Your task to perform on an android device: Search for macbook pro on ebay, select the first entry, add it to the cart, then select checkout. Image 0: 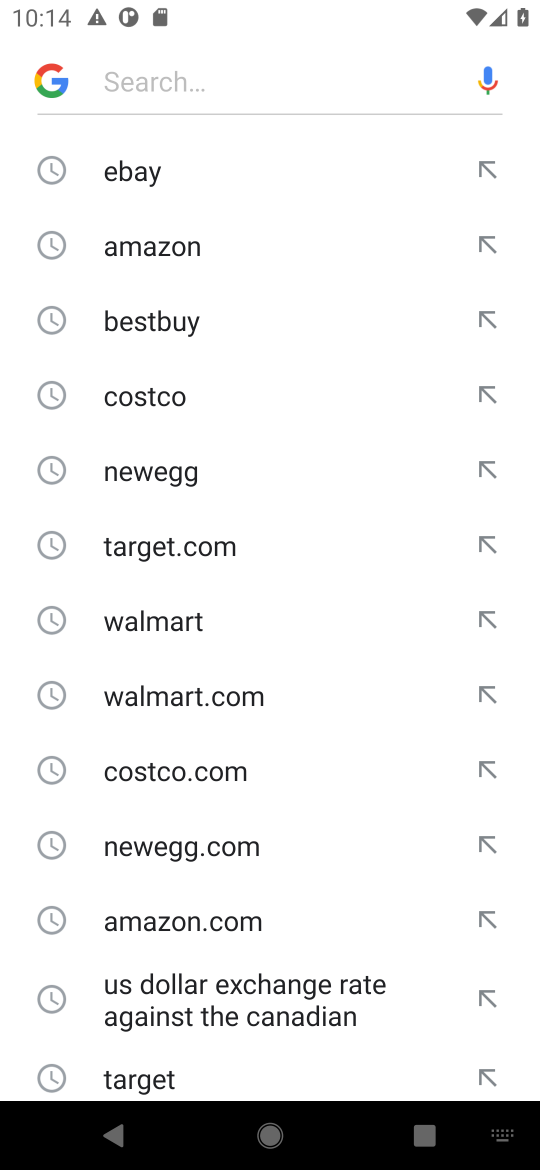
Step 0: press home button
Your task to perform on an android device: Search for macbook pro on ebay, select the first entry, add it to the cart, then select checkout. Image 1: 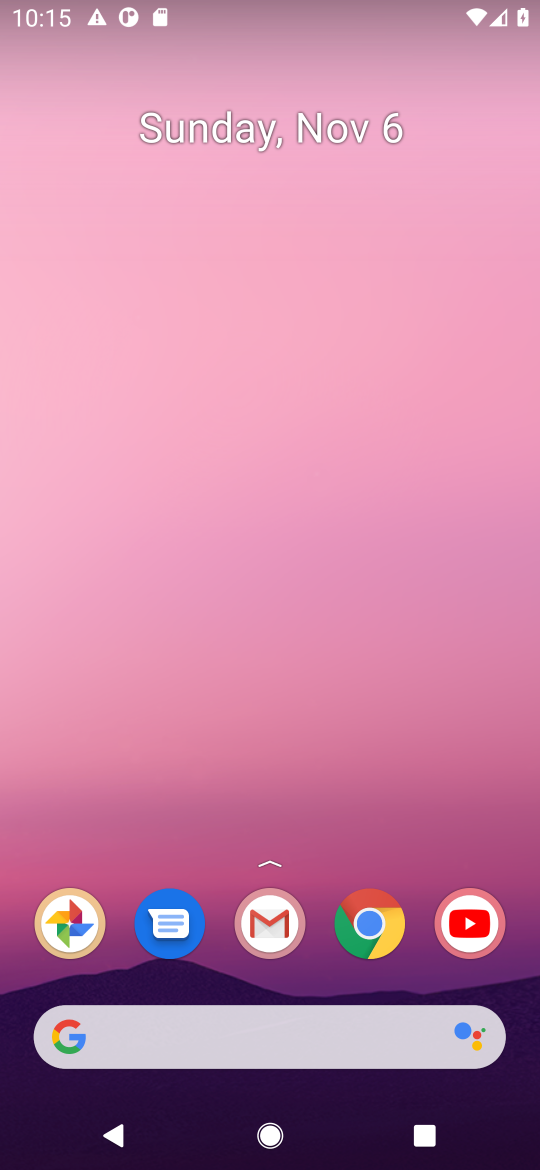
Step 1: click (119, 169)
Your task to perform on an android device: Search for macbook pro on ebay, select the first entry, add it to the cart, then select checkout. Image 2: 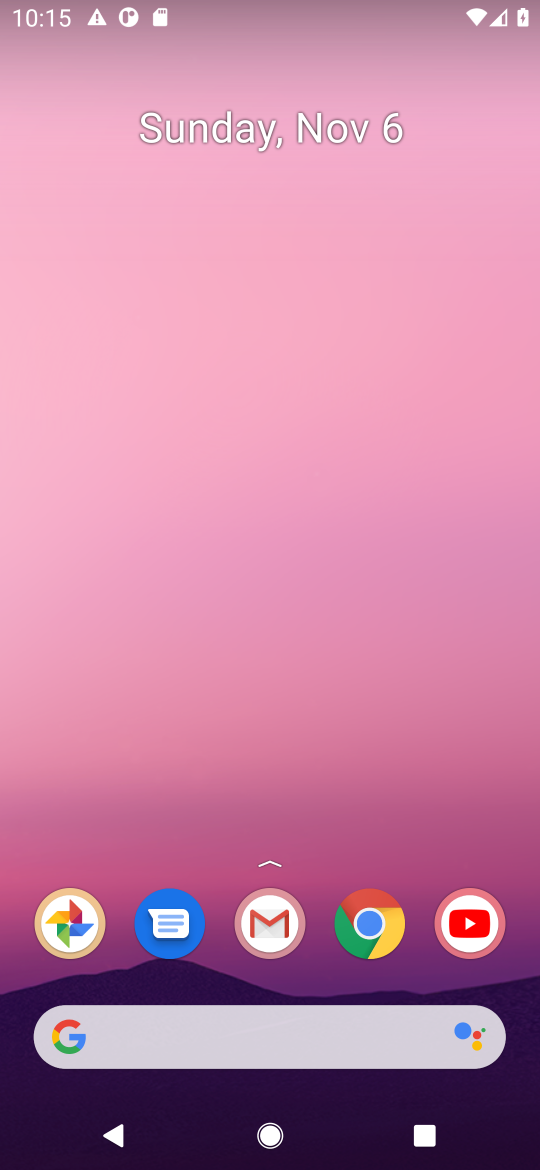
Step 2: click (386, 916)
Your task to perform on an android device: Search for macbook pro on ebay, select the first entry, add it to the cart, then select checkout. Image 3: 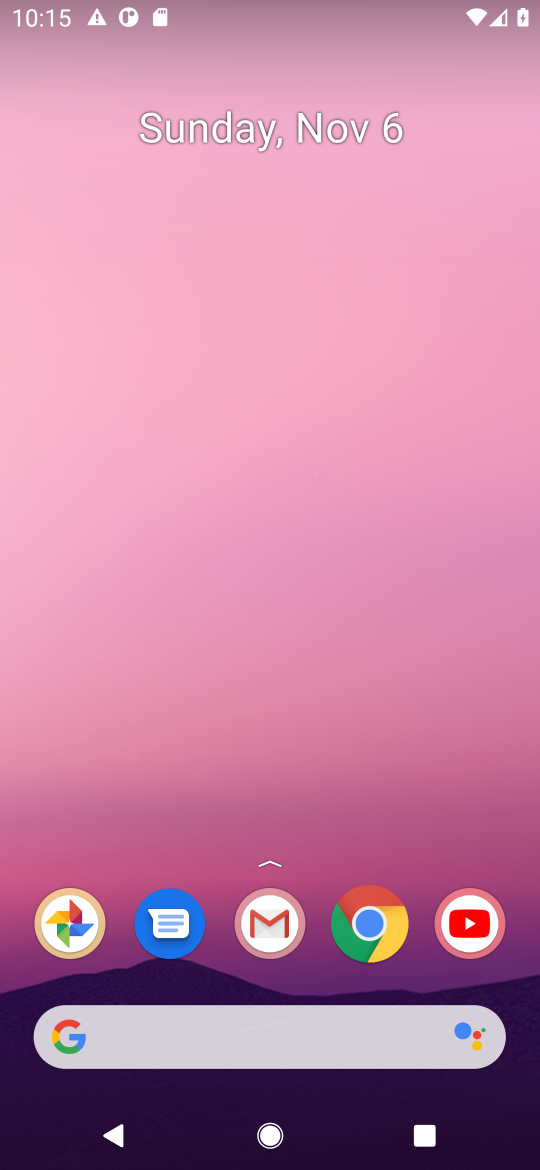
Step 3: click (373, 938)
Your task to perform on an android device: Search for macbook pro on ebay, select the first entry, add it to the cart, then select checkout. Image 4: 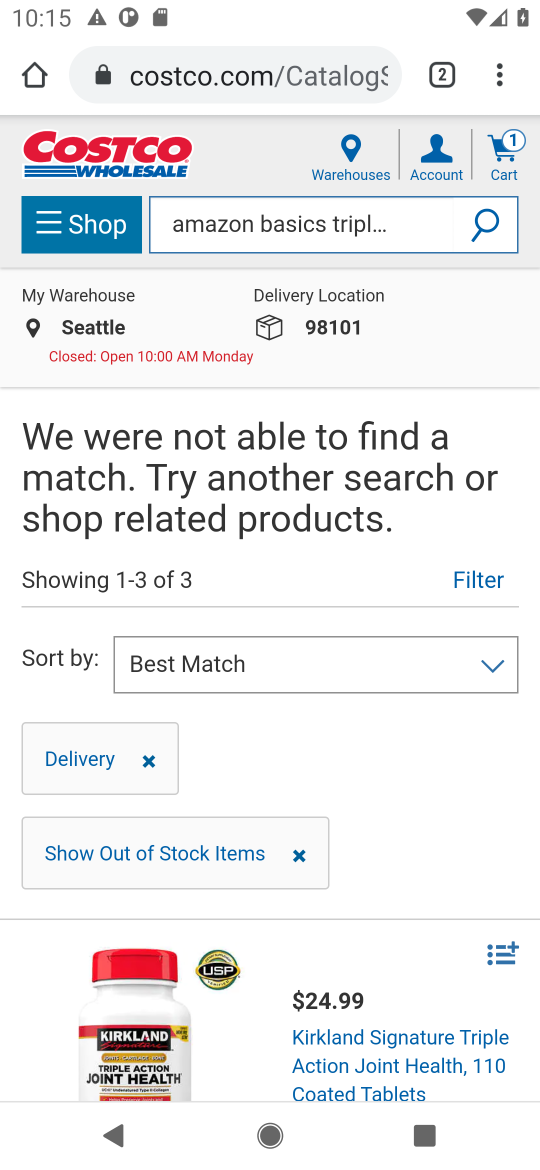
Step 4: click (170, 66)
Your task to perform on an android device: Search for macbook pro on ebay, select the first entry, add it to the cart, then select checkout. Image 5: 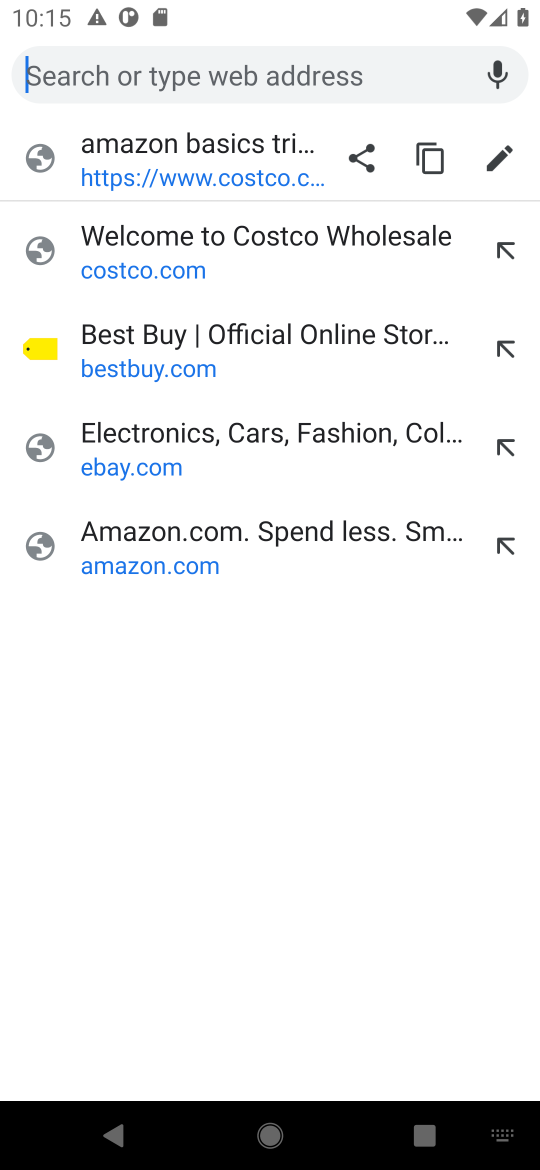
Step 5: click (110, 479)
Your task to perform on an android device: Search for macbook pro on ebay, select the first entry, add it to the cart, then select checkout. Image 6: 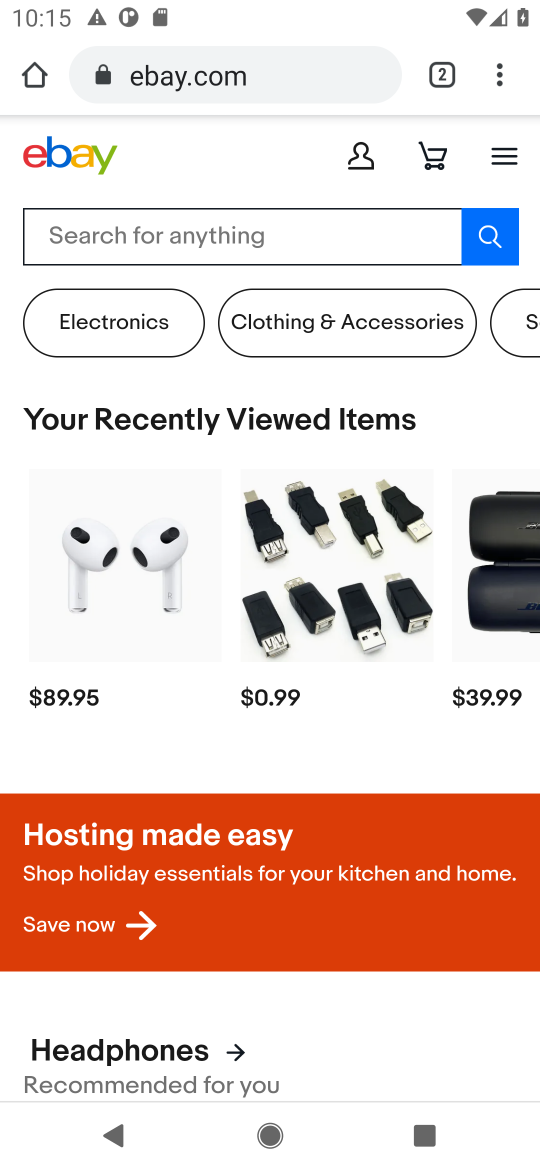
Step 6: click (70, 246)
Your task to perform on an android device: Search for macbook pro on ebay, select the first entry, add it to the cart, then select checkout. Image 7: 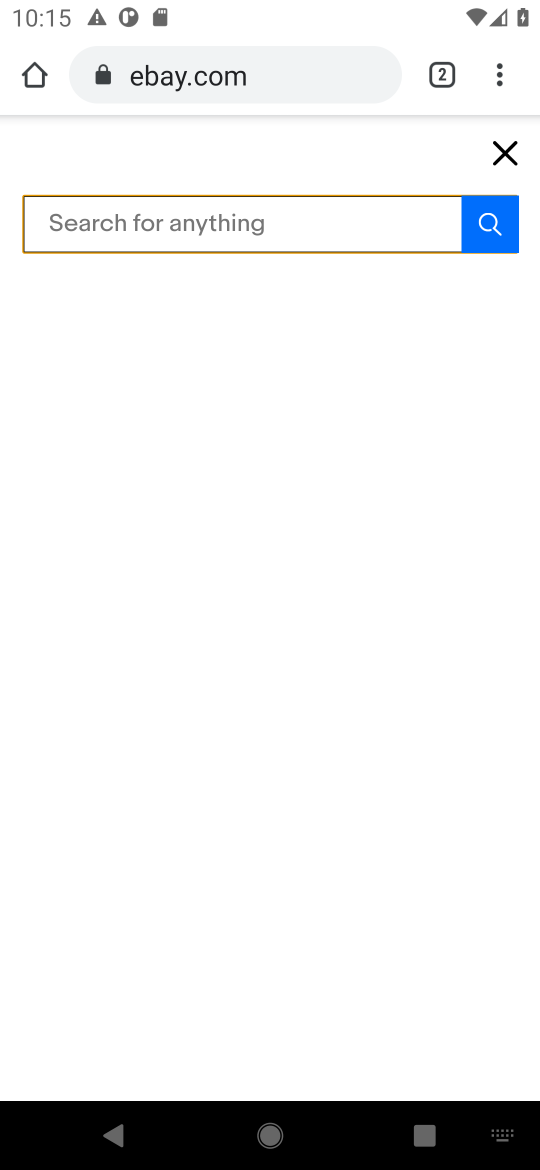
Step 7: type "macbook pro"
Your task to perform on an android device: Search for macbook pro on ebay, select the first entry, add it to the cart, then select checkout. Image 8: 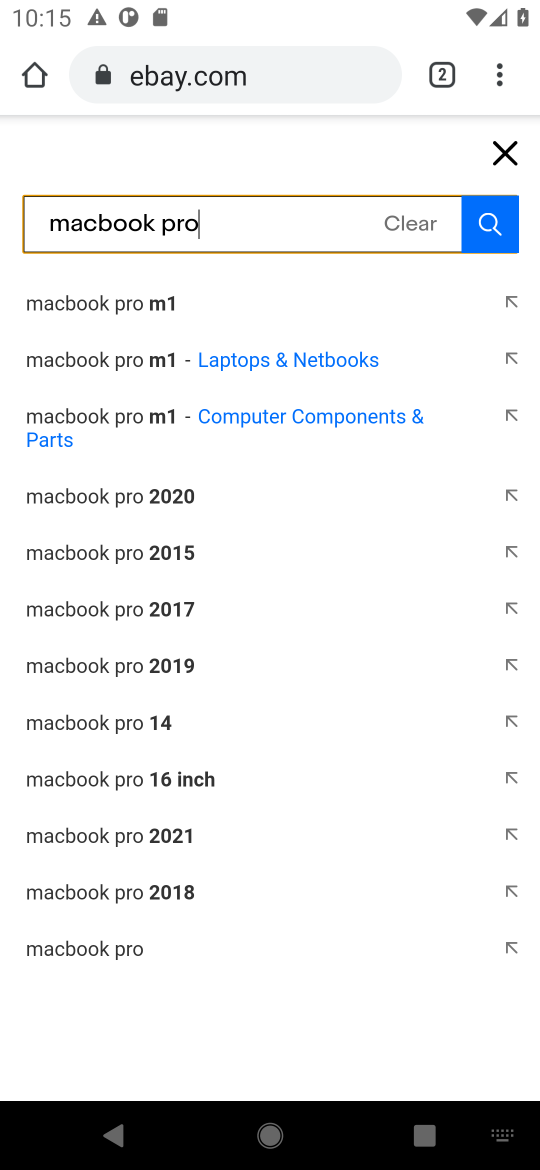
Step 8: click (79, 952)
Your task to perform on an android device: Search for macbook pro on ebay, select the first entry, add it to the cart, then select checkout. Image 9: 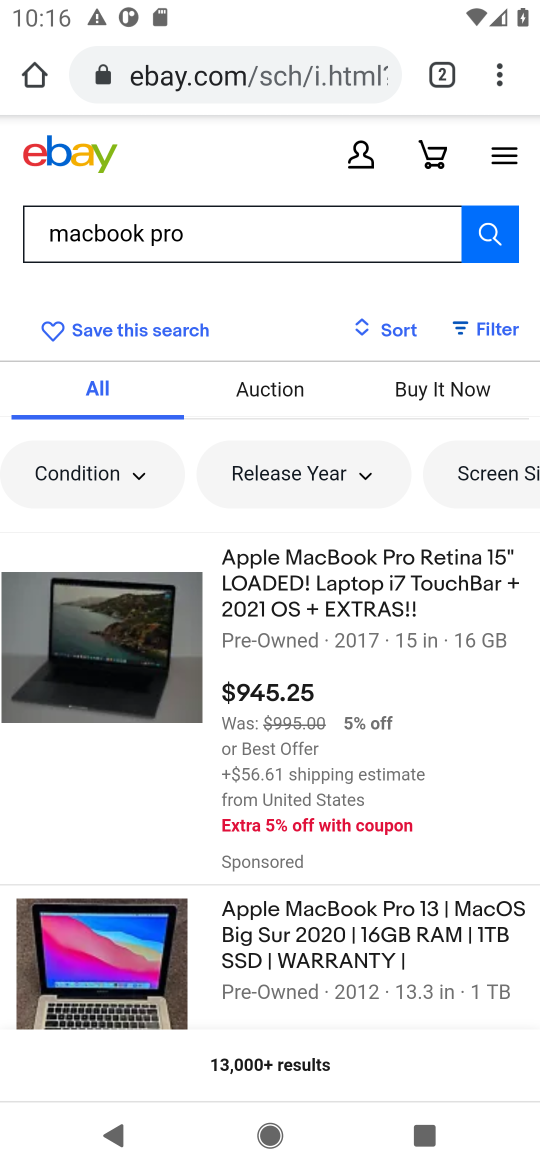
Step 9: click (123, 638)
Your task to perform on an android device: Search for macbook pro on ebay, select the first entry, add it to the cart, then select checkout. Image 10: 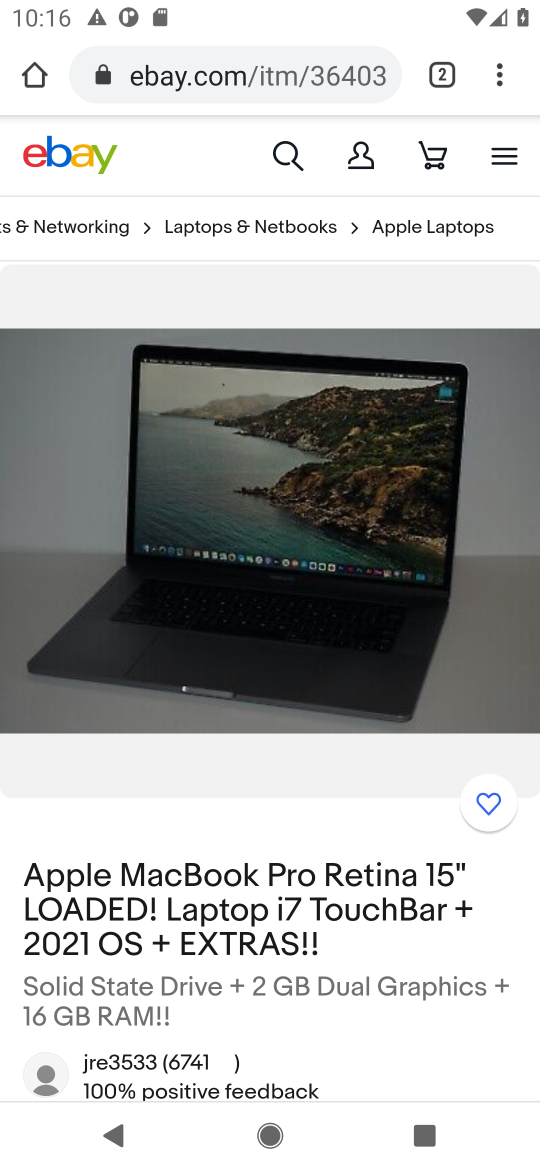
Step 10: drag from (292, 837) to (251, 334)
Your task to perform on an android device: Search for macbook pro on ebay, select the first entry, add it to the cart, then select checkout. Image 11: 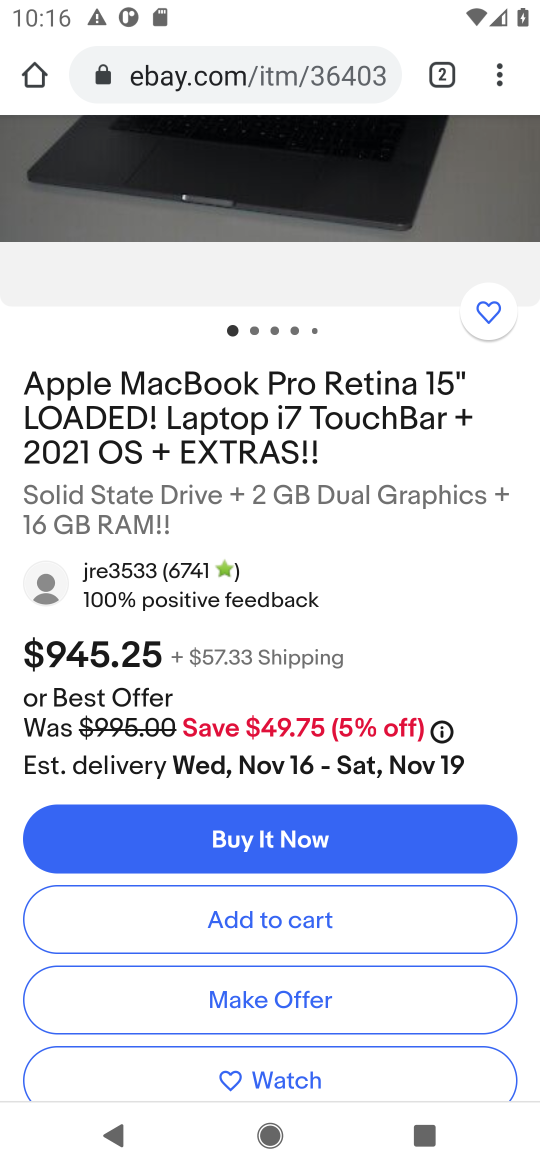
Step 11: click (298, 914)
Your task to perform on an android device: Search for macbook pro on ebay, select the first entry, add it to the cart, then select checkout. Image 12: 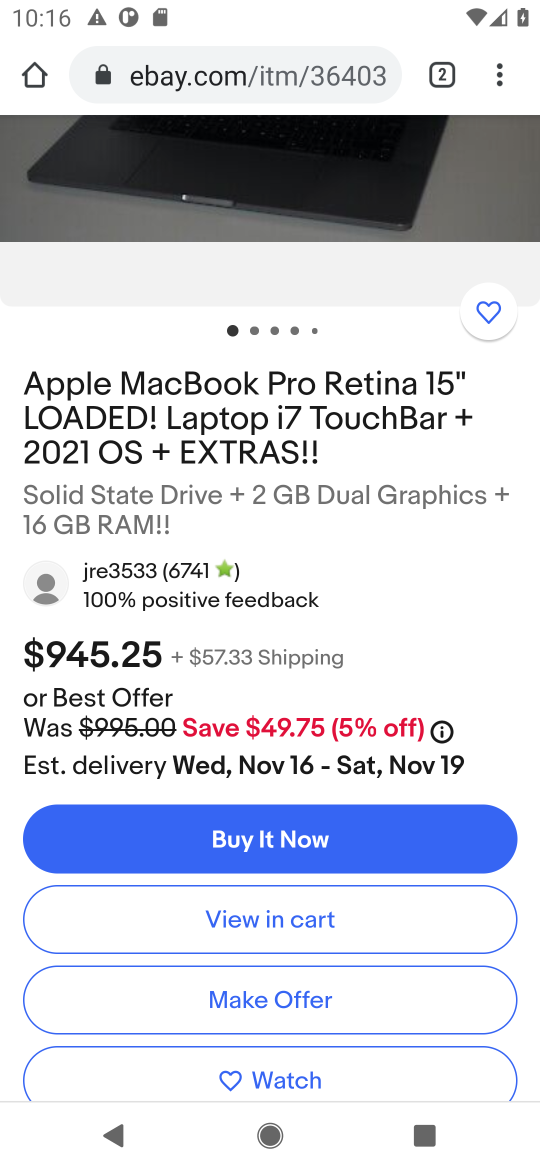
Step 12: click (298, 914)
Your task to perform on an android device: Search for macbook pro on ebay, select the first entry, add it to the cart, then select checkout. Image 13: 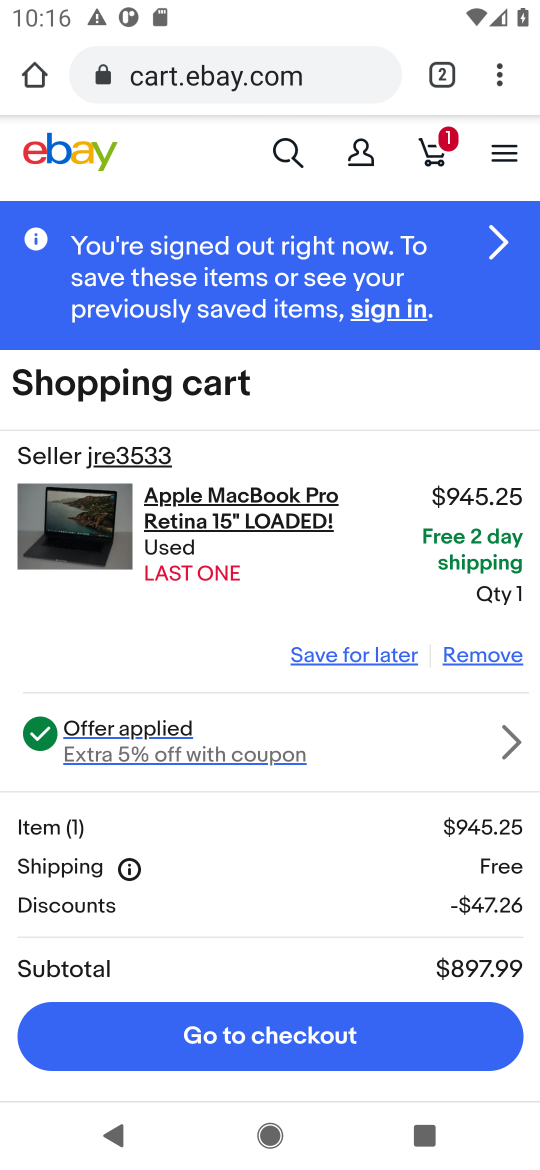
Step 13: click (252, 1033)
Your task to perform on an android device: Search for macbook pro on ebay, select the first entry, add it to the cart, then select checkout. Image 14: 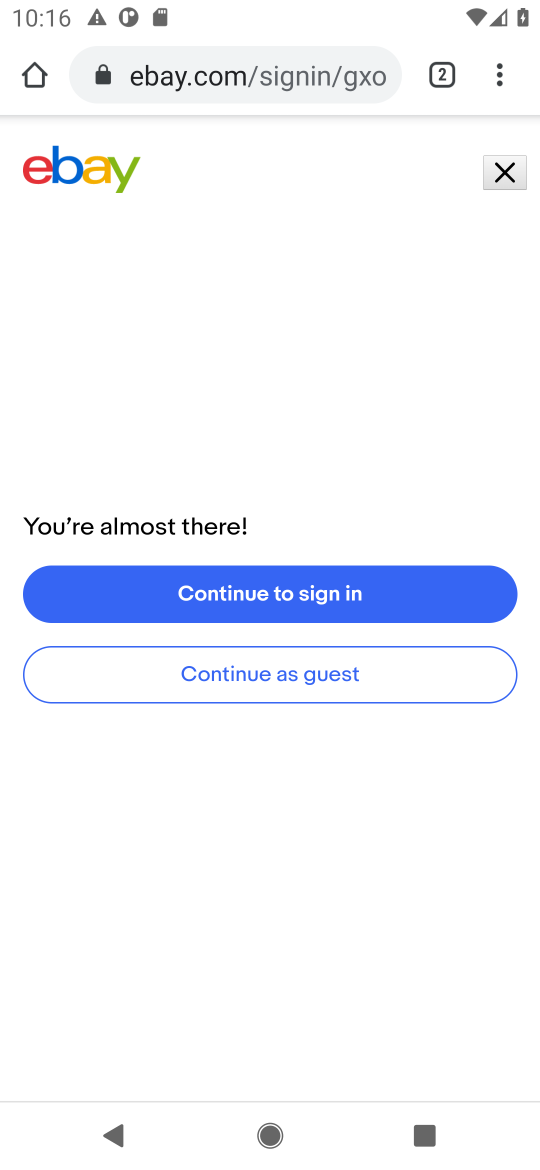
Step 14: task complete